Your task to perform on an android device: What's the weather? Image 0: 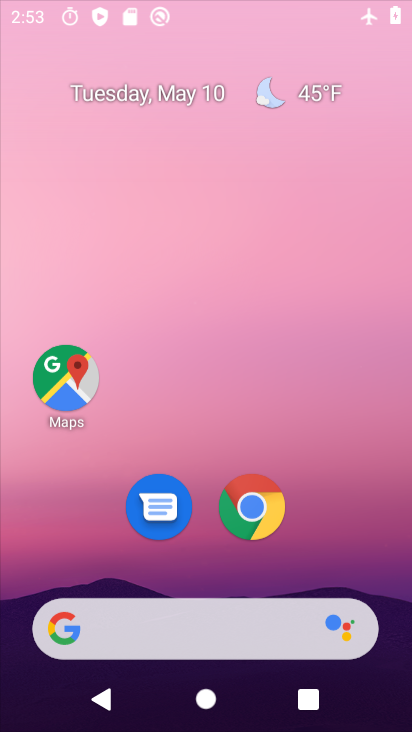
Step 0: click (199, 333)
Your task to perform on an android device: What's the weather? Image 1: 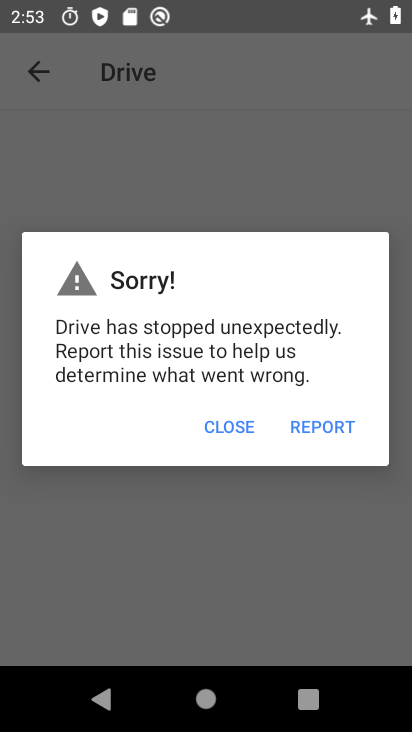
Step 1: click (244, 420)
Your task to perform on an android device: What's the weather? Image 2: 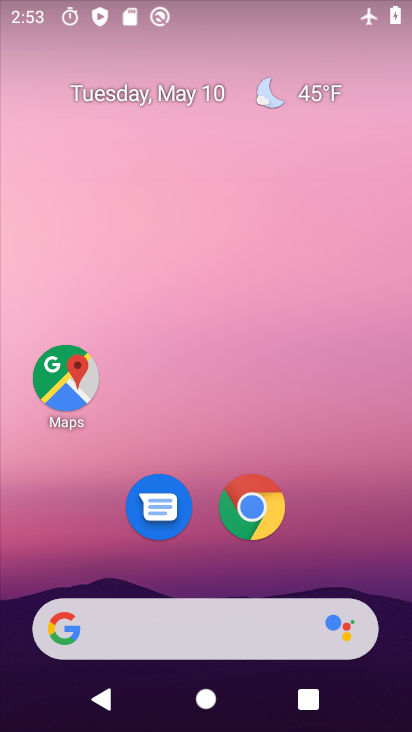
Step 2: drag from (299, 11) to (294, 325)
Your task to perform on an android device: What's the weather? Image 3: 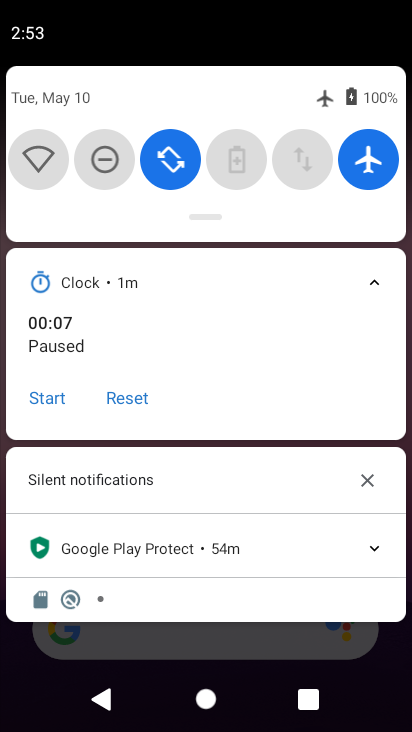
Step 3: click (354, 162)
Your task to perform on an android device: What's the weather? Image 4: 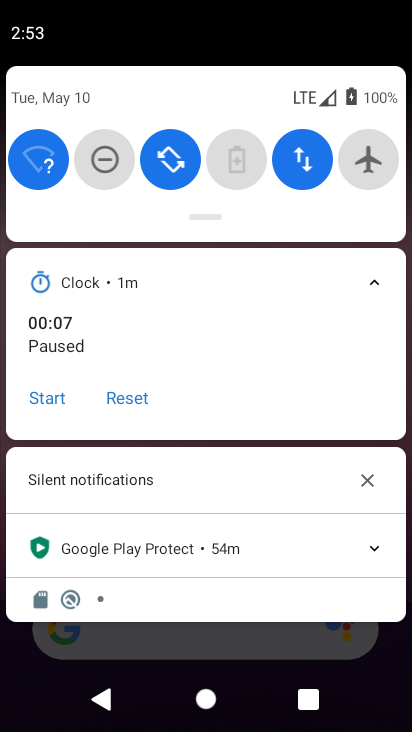
Step 4: click (370, 471)
Your task to perform on an android device: What's the weather? Image 5: 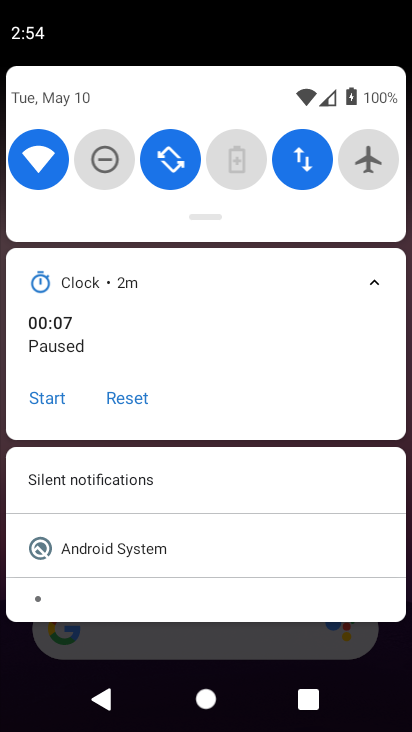
Step 5: click (50, 667)
Your task to perform on an android device: What's the weather? Image 6: 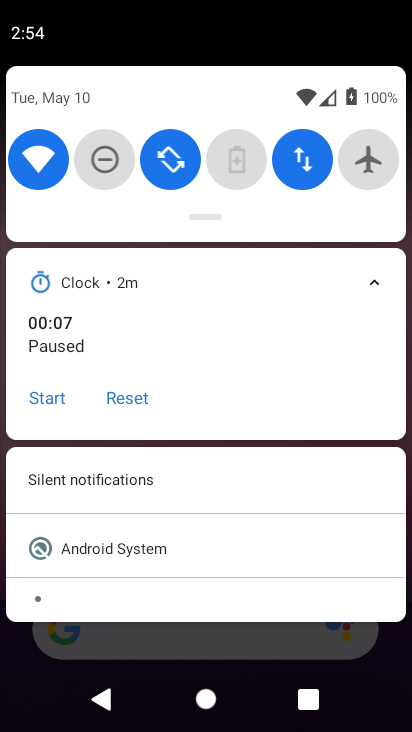
Step 6: click (30, 655)
Your task to perform on an android device: What's the weather? Image 7: 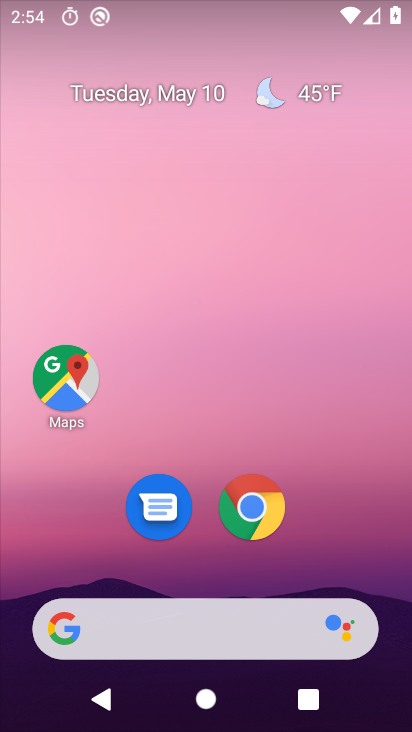
Step 7: drag from (179, 595) to (179, 199)
Your task to perform on an android device: What's the weather? Image 8: 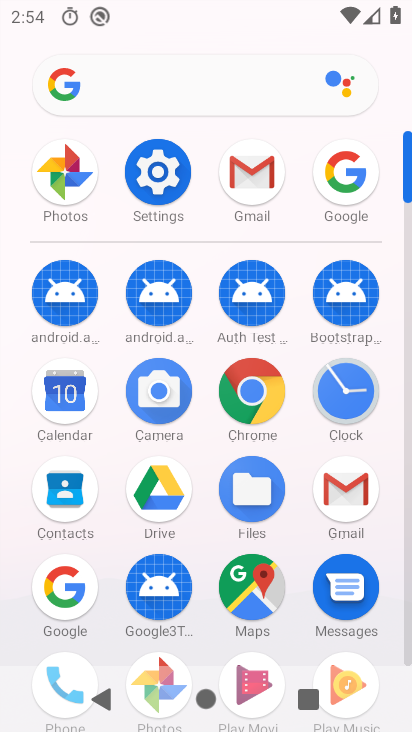
Step 8: click (54, 576)
Your task to perform on an android device: What's the weather? Image 9: 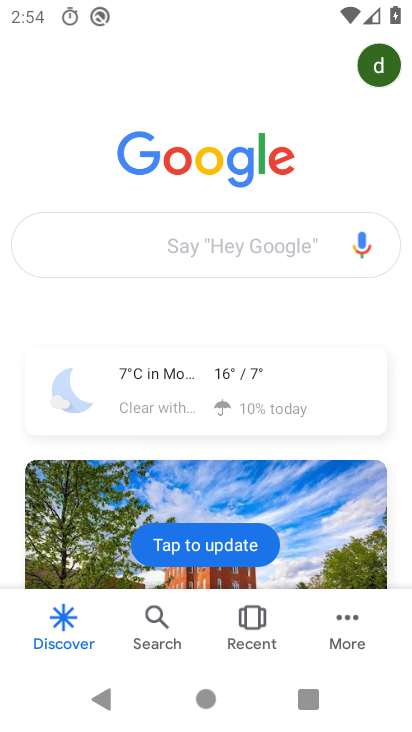
Step 9: click (176, 388)
Your task to perform on an android device: What's the weather? Image 10: 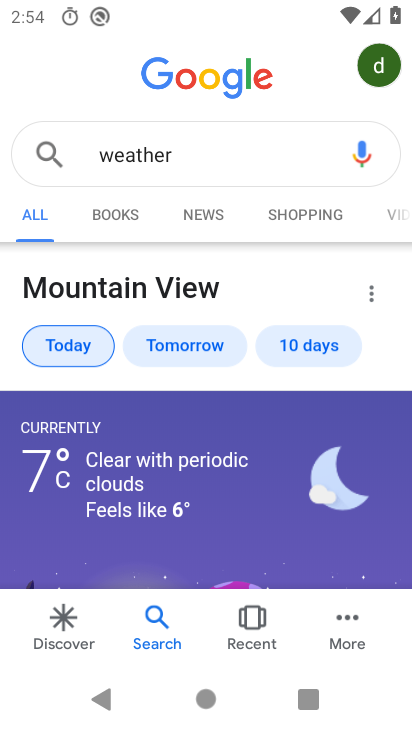
Step 10: task complete